Your task to perform on an android device: set the timer Image 0: 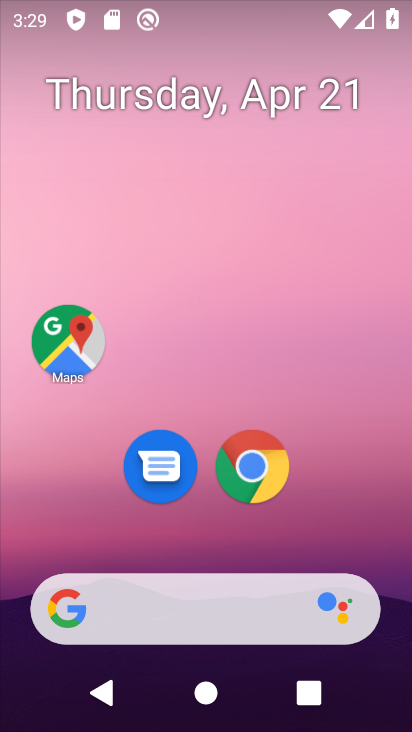
Step 0: drag from (193, 524) to (198, 157)
Your task to perform on an android device: set the timer Image 1: 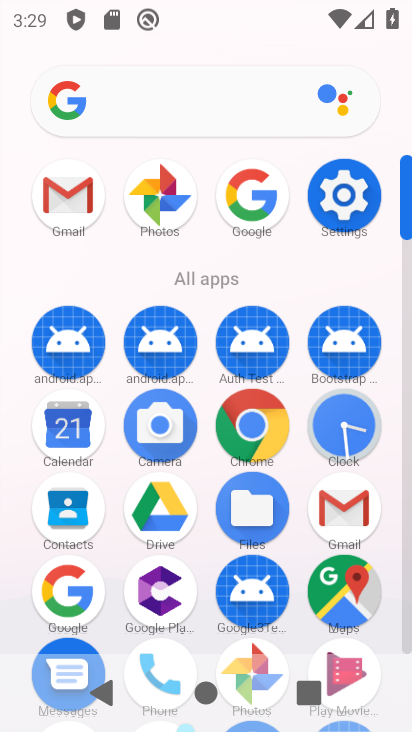
Step 1: click (342, 405)
Your task to perform on an android device: set the timer Image 2: 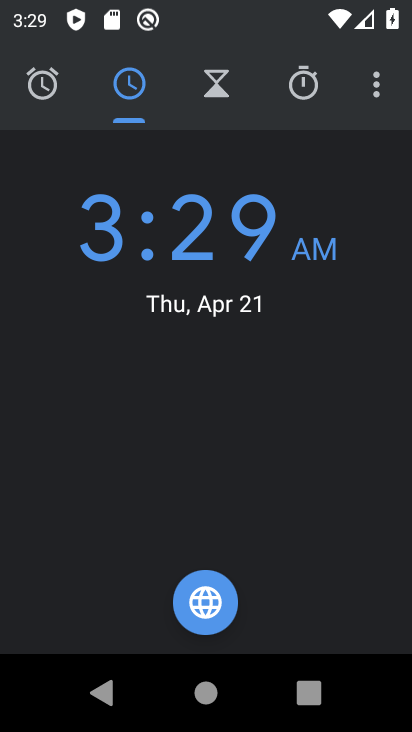
Step 2: click (222, 94)
Your task to perform on an android device: set the timer Image 3: 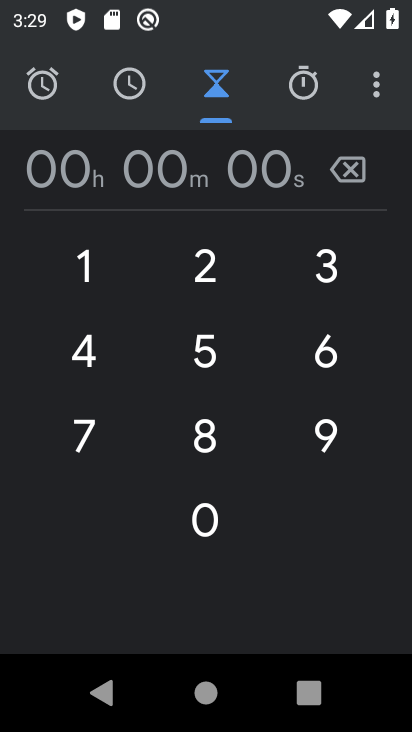
Step 3: click (255, 175)
Your task to perform on an android device: set the timer Image 4: 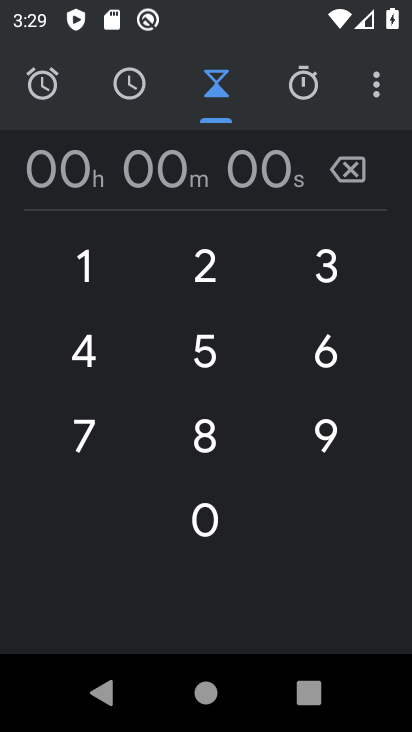
Step 4: type "45"
Your task to perform on an android device: set the timer Image 5: 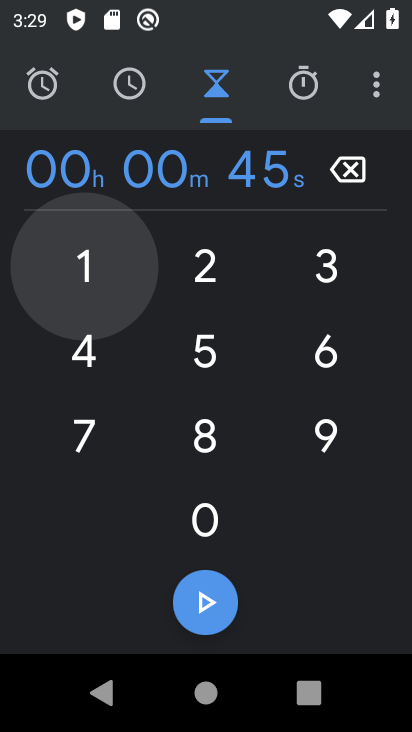
Step 5: click (213, 610)
Your task to perform on an android device: set the timer Image 6: 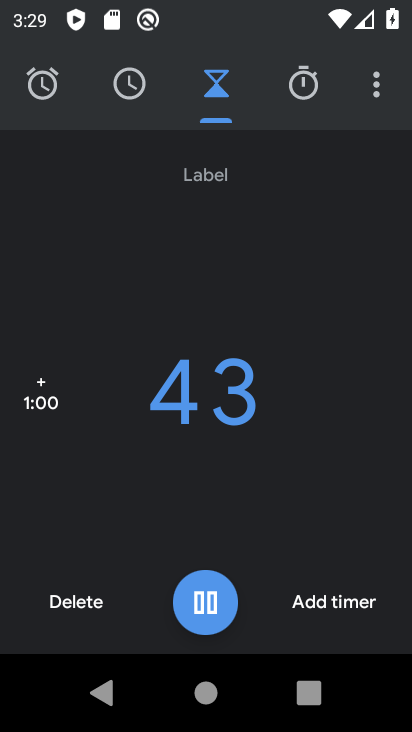
Step 6: task complete